Your task to perform on an android device: turn on the 12-hour format for clock Image 0: 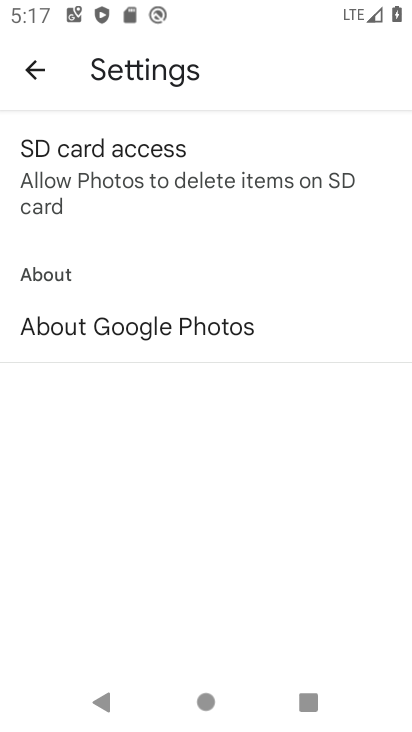
Step 0: press home button
Your task to perform on an android device: turn on the 12-hour format for clock Image 1: 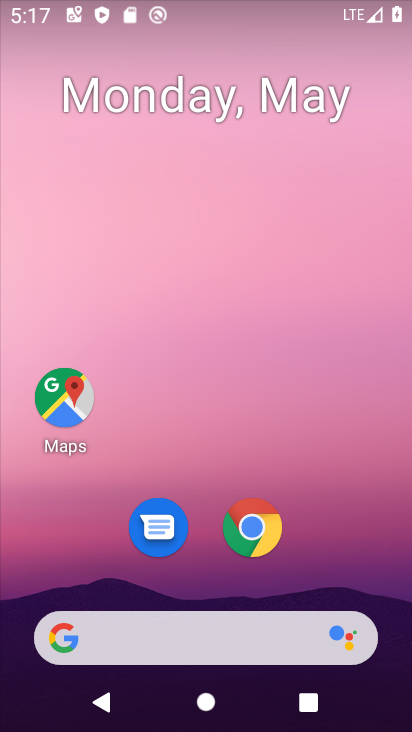
Step 1: drag from (394, 708) to (330, 131)
Your task to perform on an android device: turn on the 12-hour format for clock Image 2: 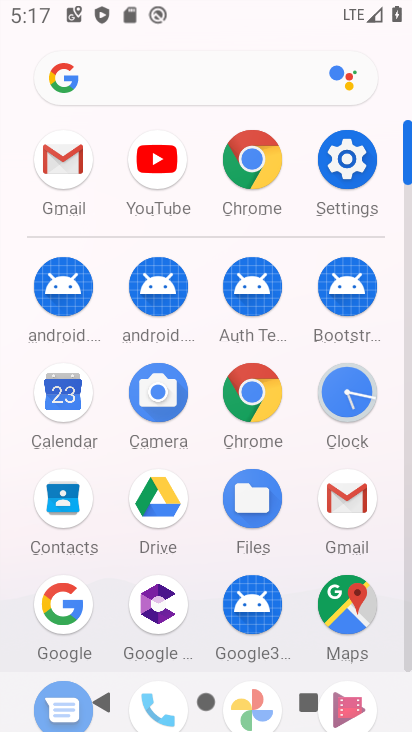
Step 2: click (343, 445)
Your task to perform on an android device: turn on the 12-hour format for clock Image 3: 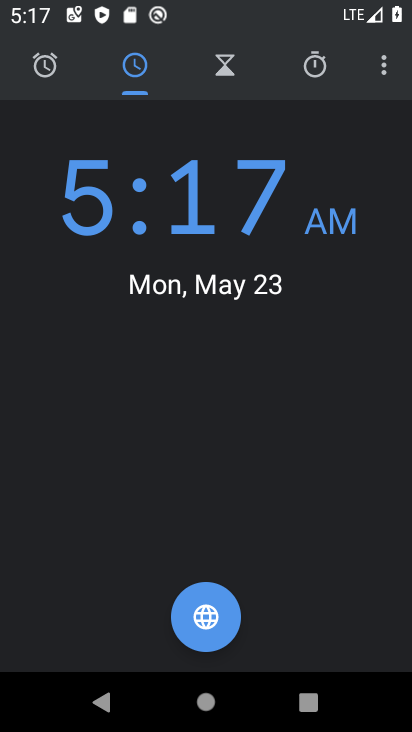
Step 3: click (385, 65)
Your task to perform on an android device: turn on the 12-hour format for clock Image 4: 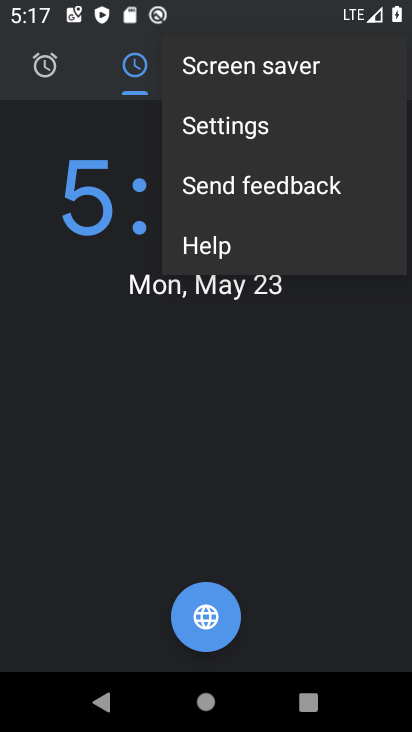
Step 4: click (220, 128)
Your task to perform on an android device: turn on the 12-hour format for clock Image 5: 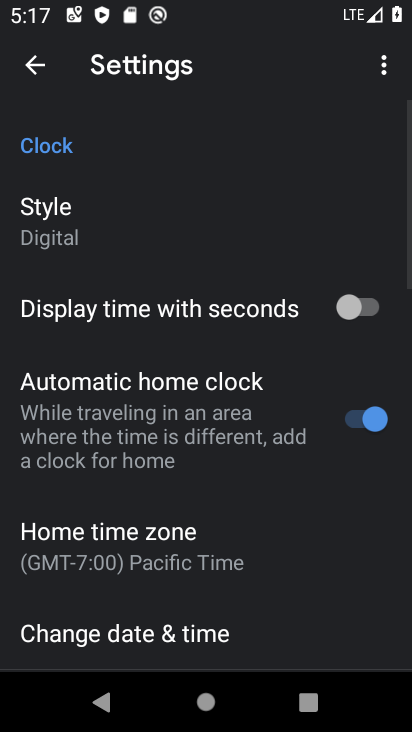
Step 5: drag from (279, 610) to (217, 172)
Your task to perform on an android device: turn on the 12-hour format for clock Image 6: 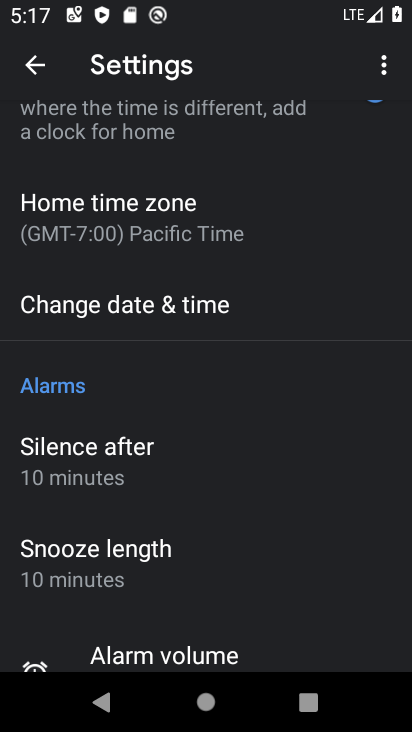
Step 6: drag from (256, 580) to (225, 290)
Your task to perform on an android device: turn on the 12-hour format for clock Image 7: 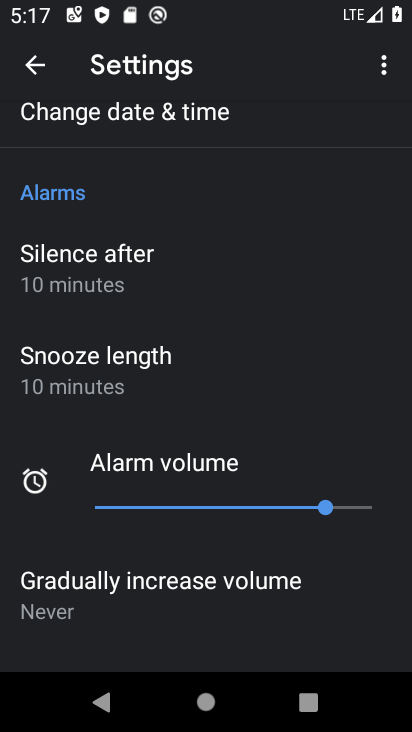
Step 7: click (103, 111)
Your task to perform on an android device: turn on the 12-hour format for clock Image 8: 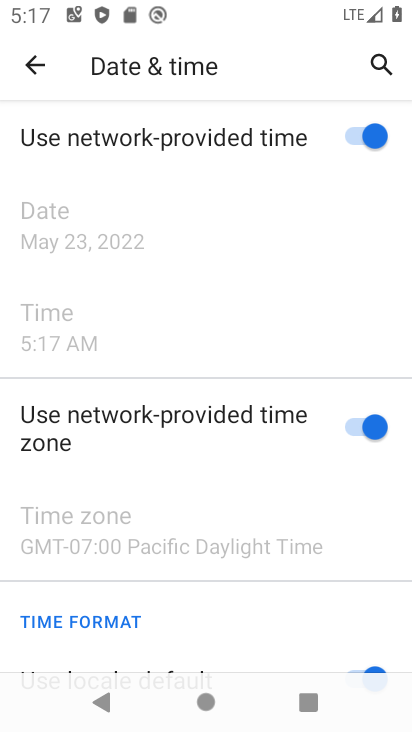
Step 8: task complete